Your task to perform on an android device: What's the news in South Korea? Image 0: 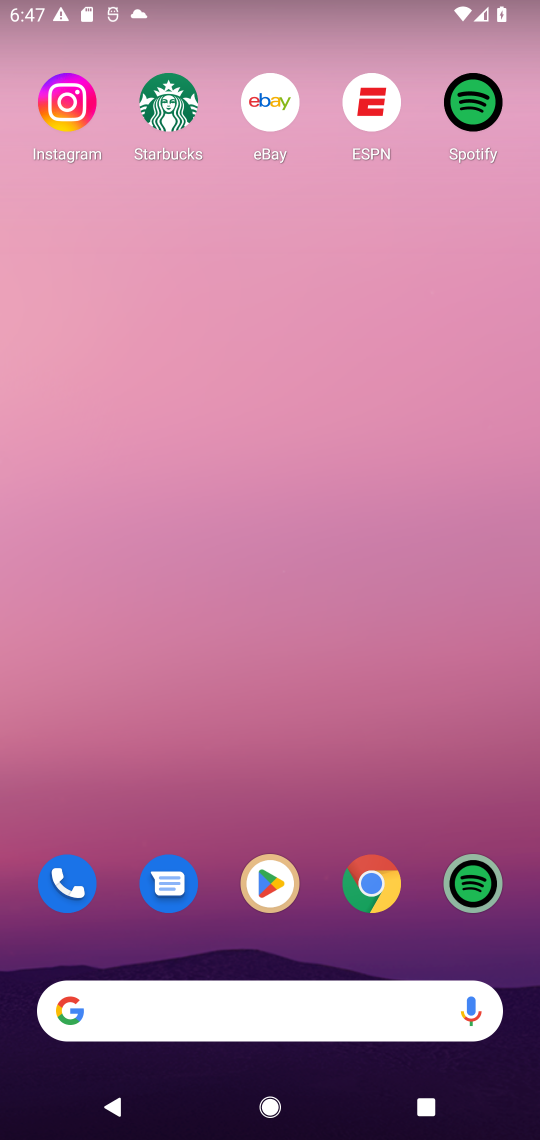
Step 0: drag from (308, 964) to (267, 86)
Your task to perform on an android device: What's the news in South Korea? Image 1: 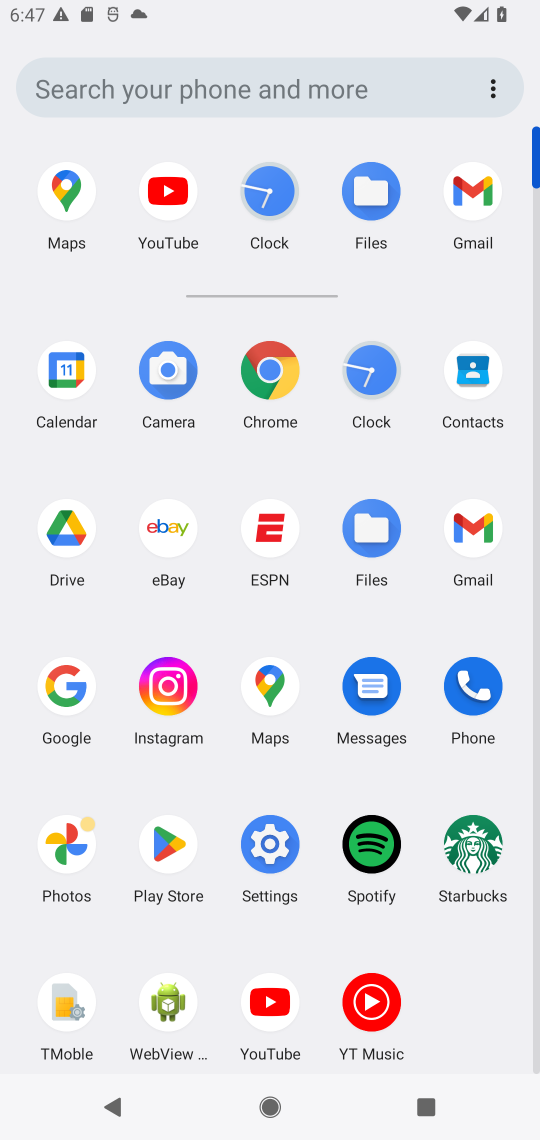
Step 1: click (281, 371)
Your task to perform on an android device: What's the news in South Korea? Image 2: 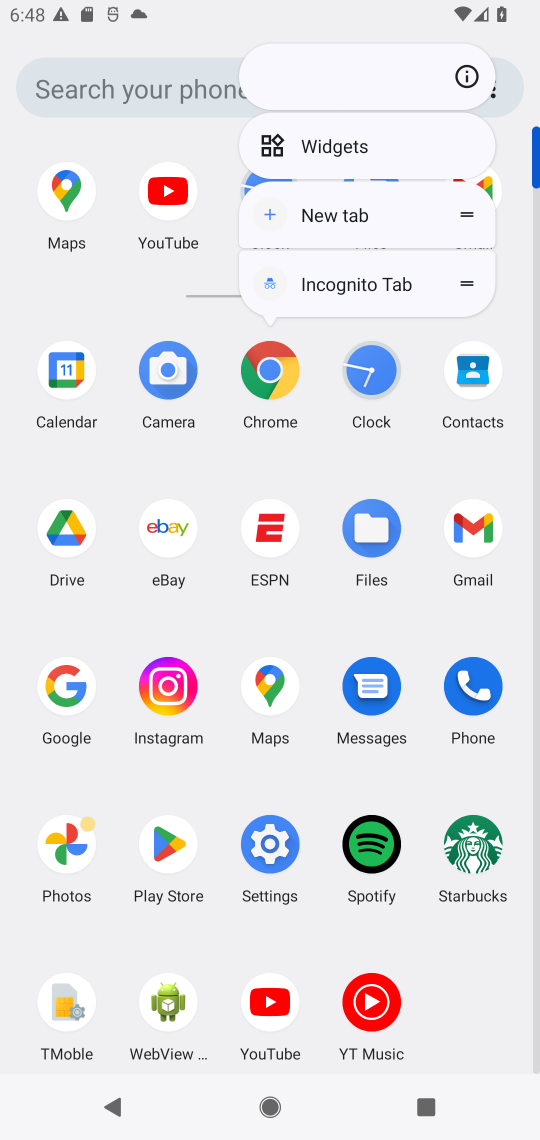
Step 2: click (254, 376)
Your task to perform on an android device: What's the news in South Korea? Image 3: 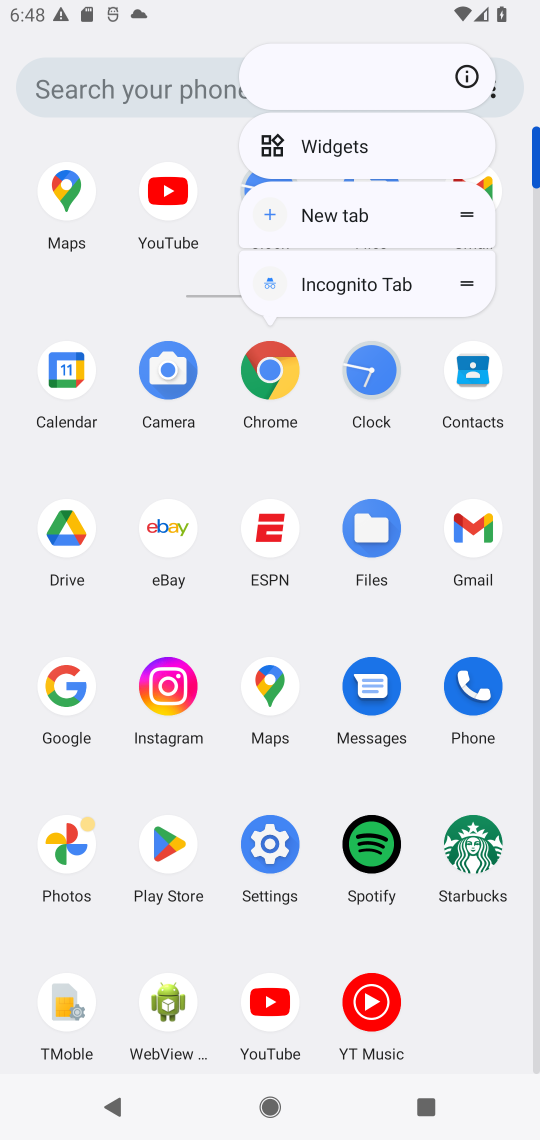
Step 3: click (271, 381)
Your task to perform on an android device: What's the news in South Korea? Image 4: 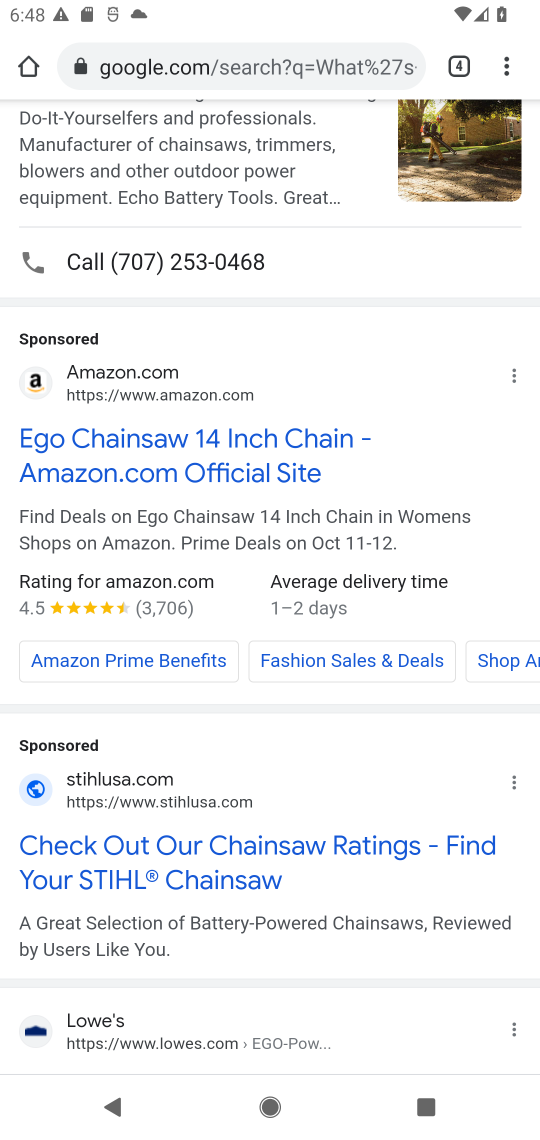
Step 4: click (289, 61)
Your task to perform on an android device: What's the news in South Korea? Image 5: 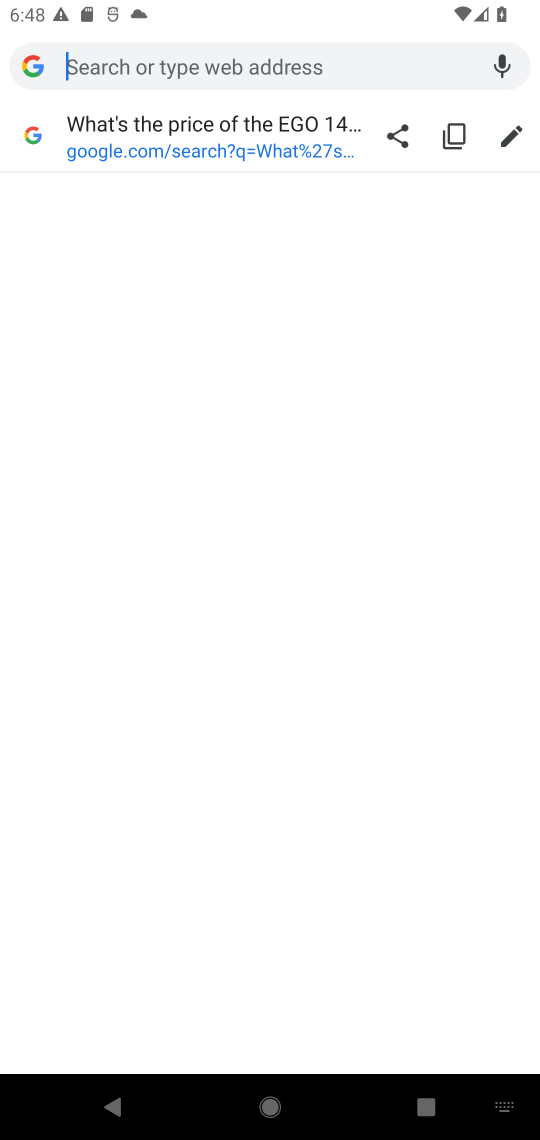
Step 5: type "What's the news in South Korea?"
Your task to perform on an android device: What's the news in South Korea? Image 6: 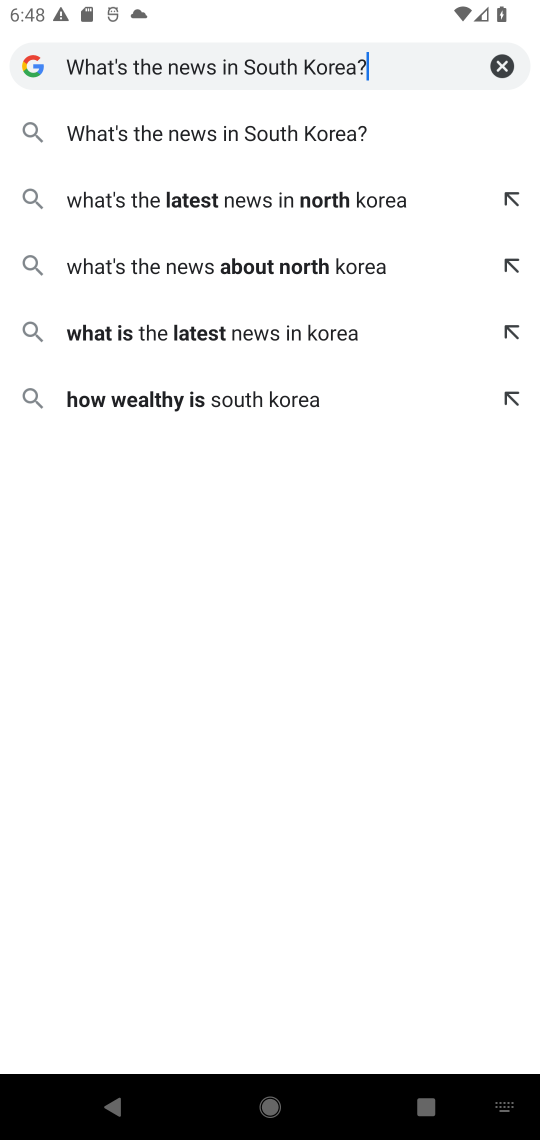
Step 6: press enter
Your task to perform on an android device: What's the news in South Korea? Image 7: 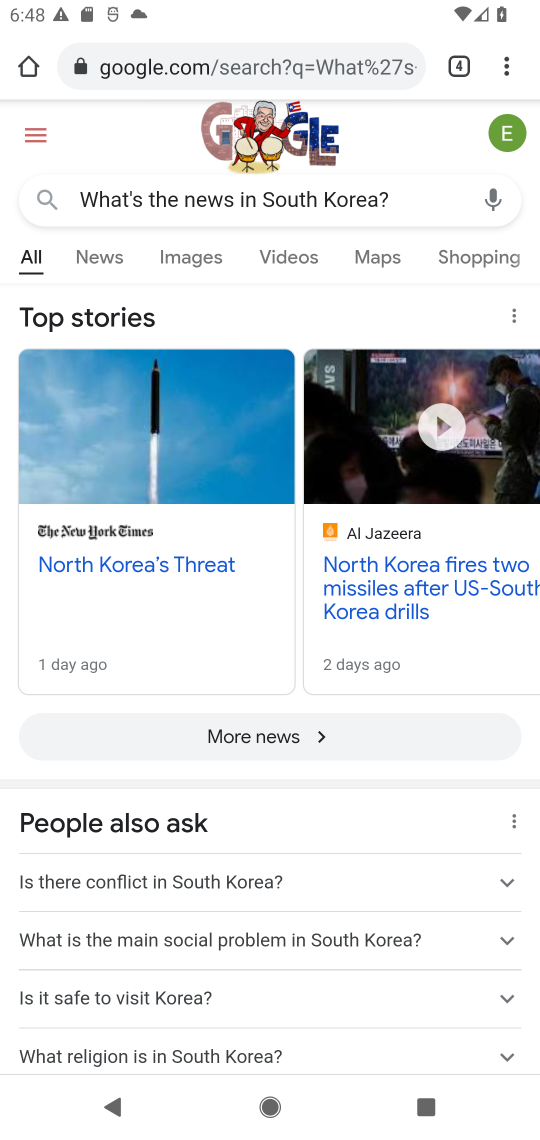
Step 7: drag from (342, 798) to (337, 153)
Your task to perform on an android device: What's the news in South Korea? Image 8: 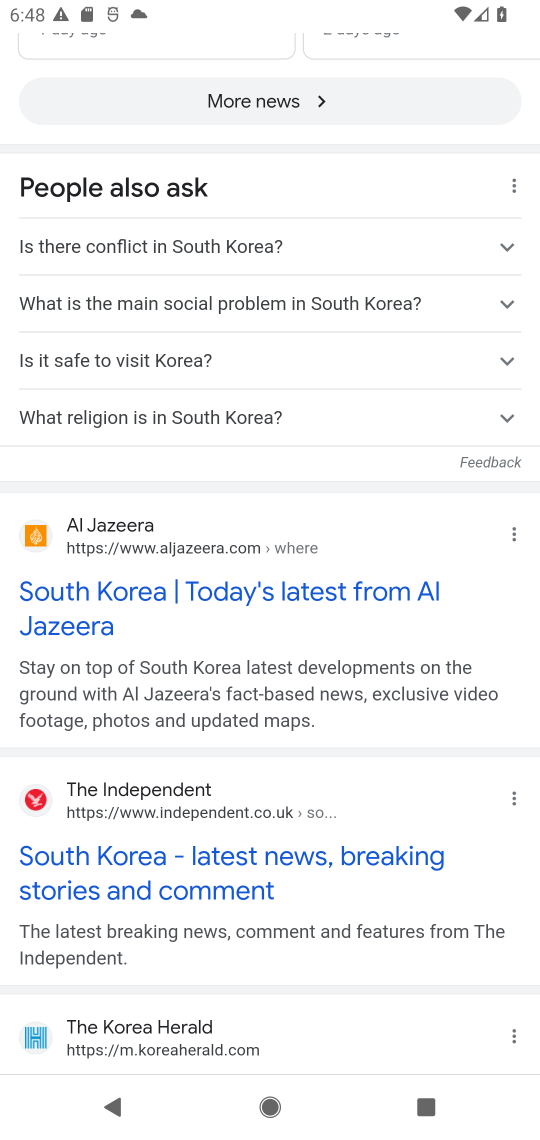
Step 8: click (202, 580)
Your task to perform on an android device: What's the news in South Korea? Image 9: 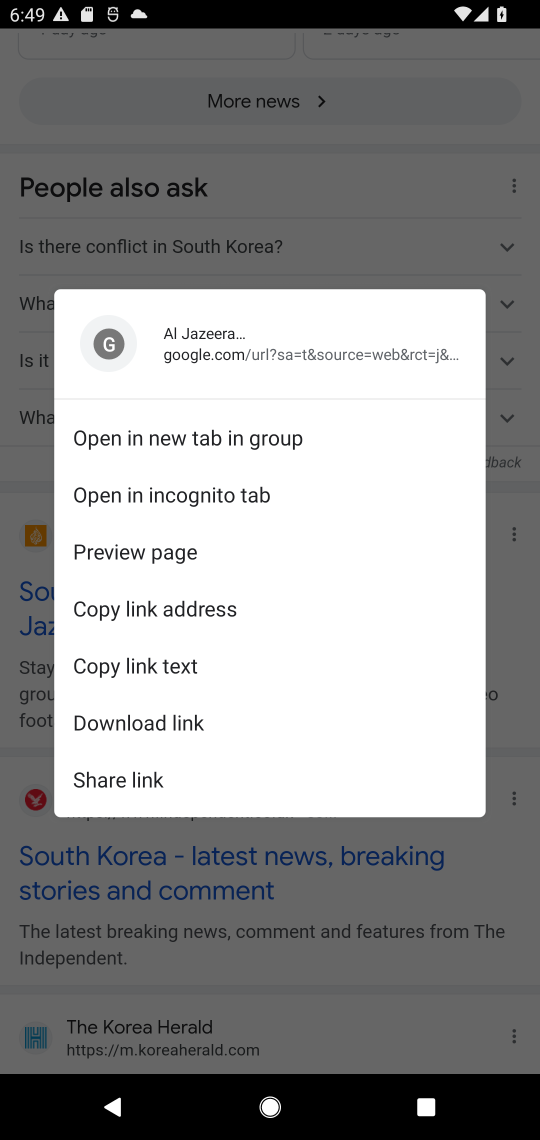
Step 9: click (401, 199)
Your task to perform on an android device: What's the news in South Korea? Image 10: 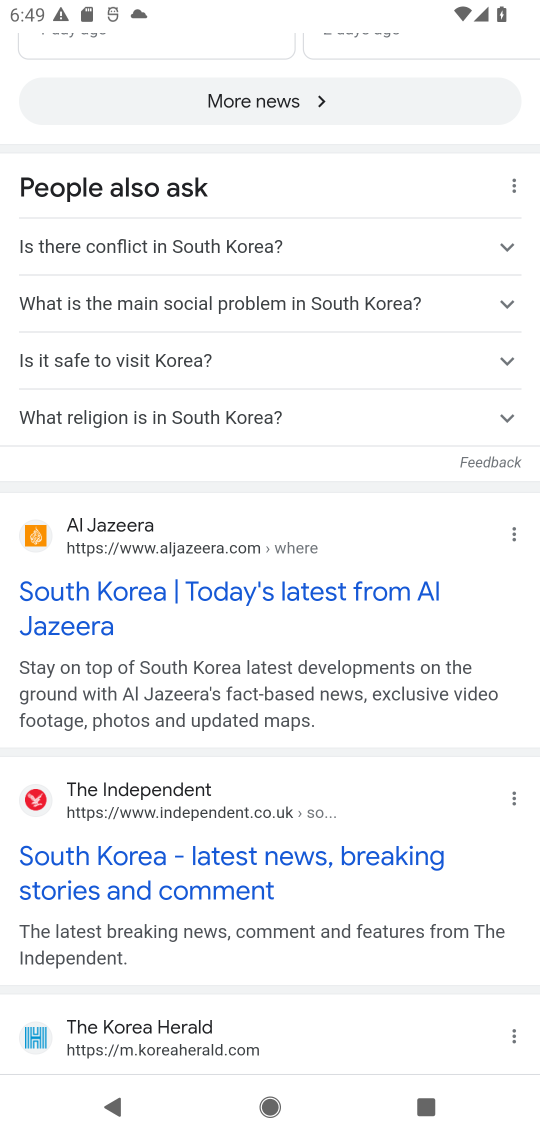
Step 10: click (104, 598)
Your task to perform on an android device: What's the news in South Korea? Image 11: 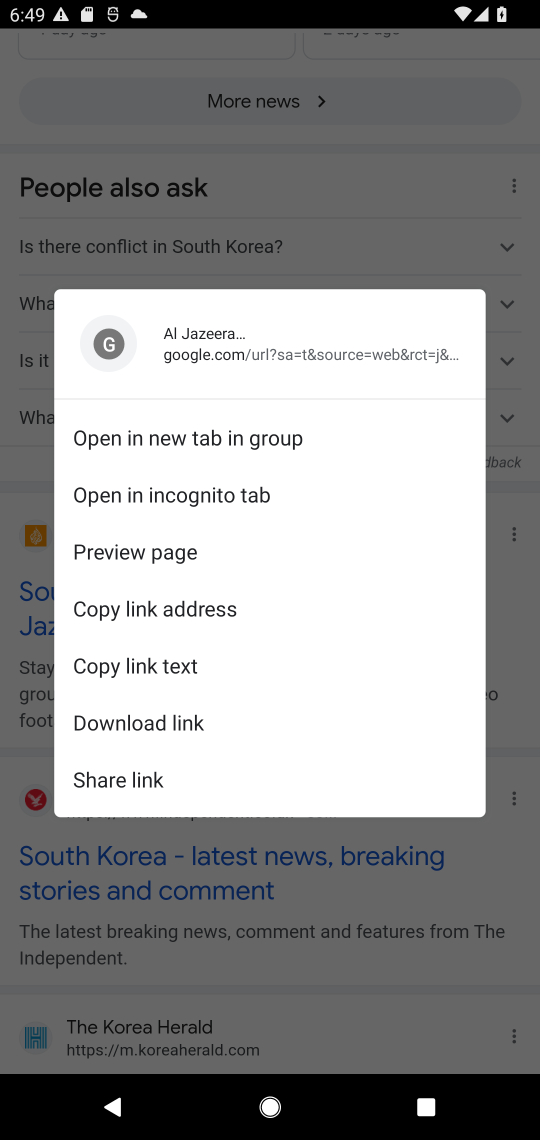
Step 11: click (458, 156)
Your task to perform on an android device: What's the news in South Korea? Image 12: 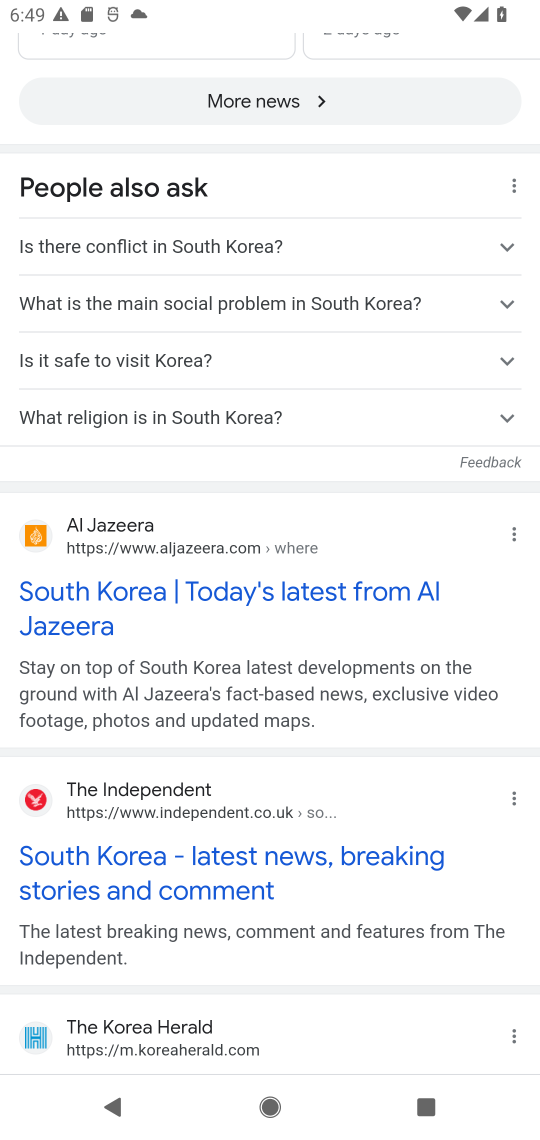
Step 12: click (282, 588)
Your task to perform on an android device: What's the news in South Korea? Image 13: 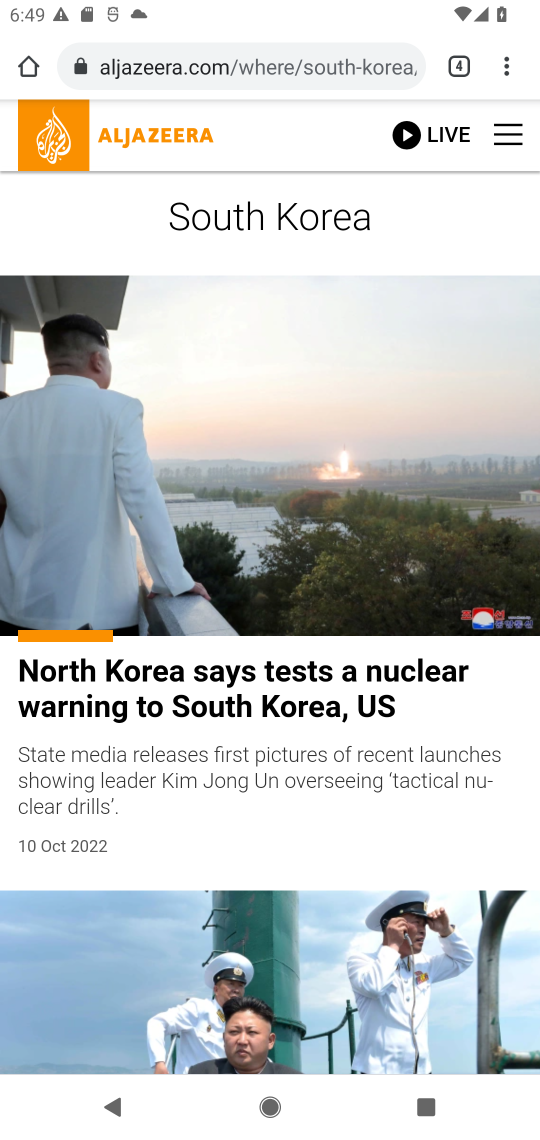
Step 13: task complete